Your task to perform on an android device: What's the weather going to be tomorrow? Image 0: 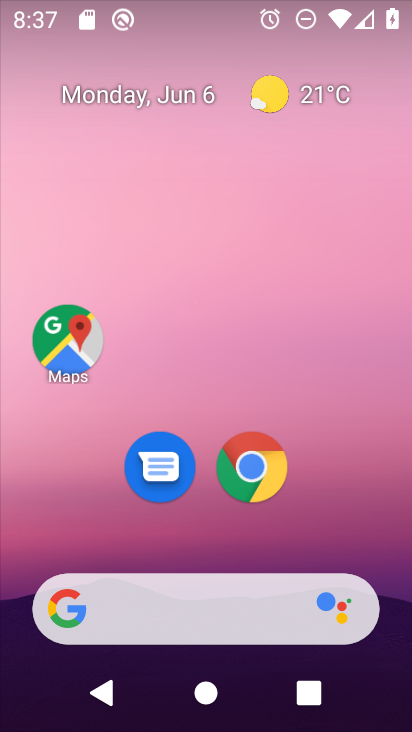
Step 0: click (292, 100)
Your task to perform on an android device: What's the weather going to be tomorrow? Image 1: 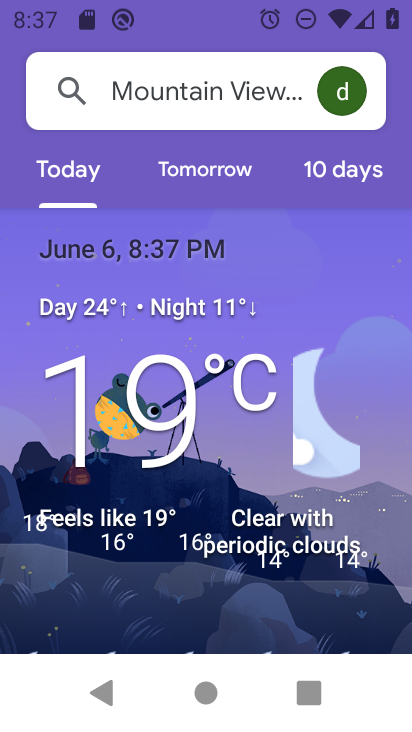
Step 1: click (210, 171)
Your task to perform on an android device: What's the weather going to be tomorrow? Image 2: 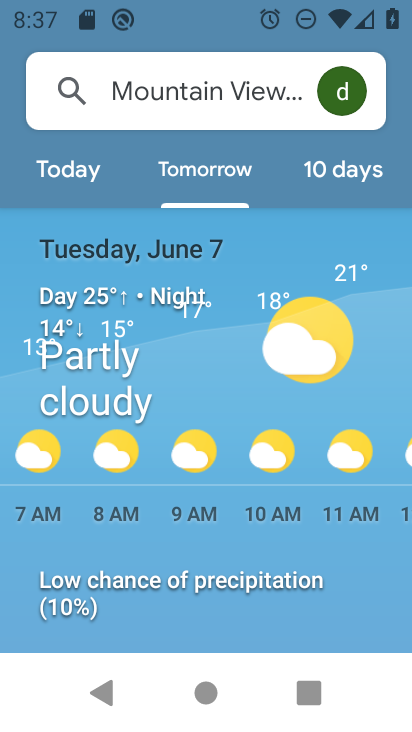
Step 2: task complete